Your task to perform on an android device: Search for bose soundlink mini on target, select the first entry, and add it to the cart. Image 0: 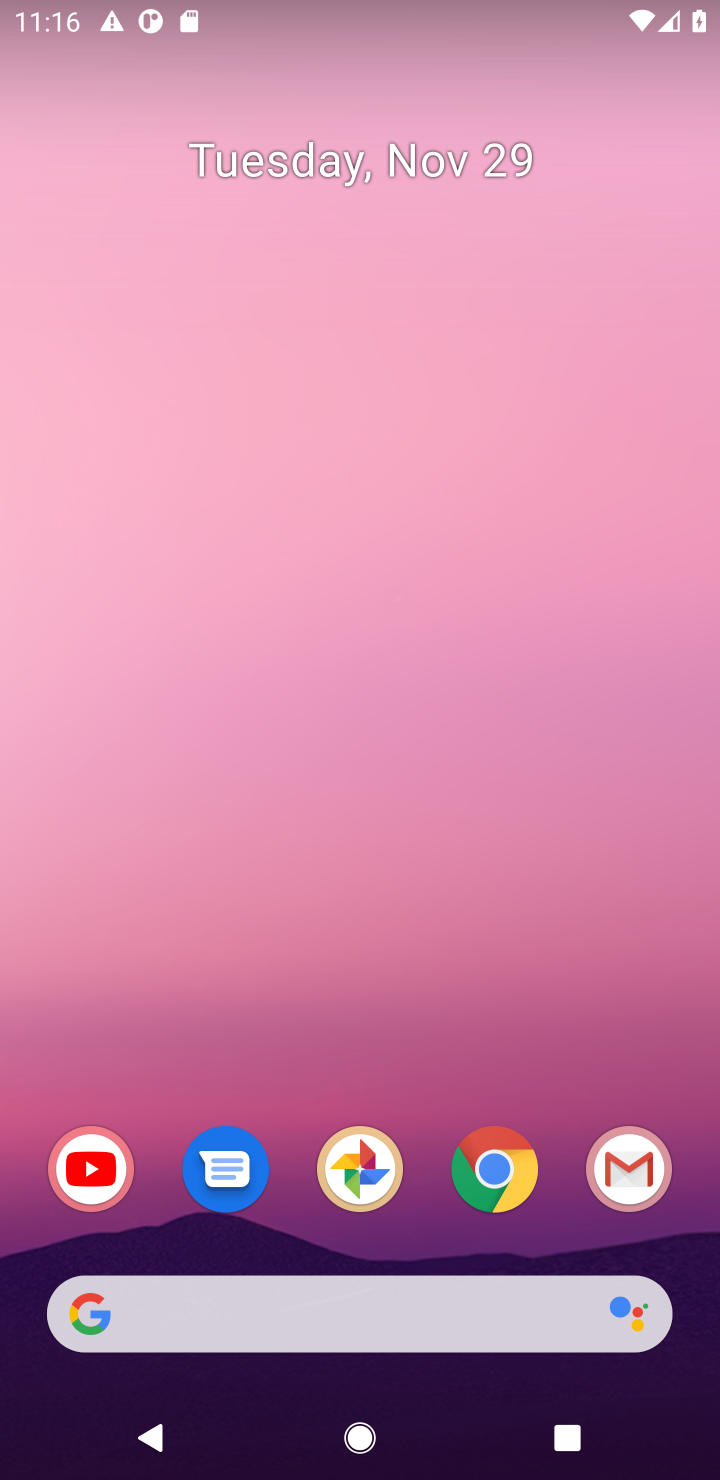
Step 0: click (348, 1300)
Your task to perform on an android device: Search for bose soundlink mini on target, select the first entry, and add it to the cart. Image 1: 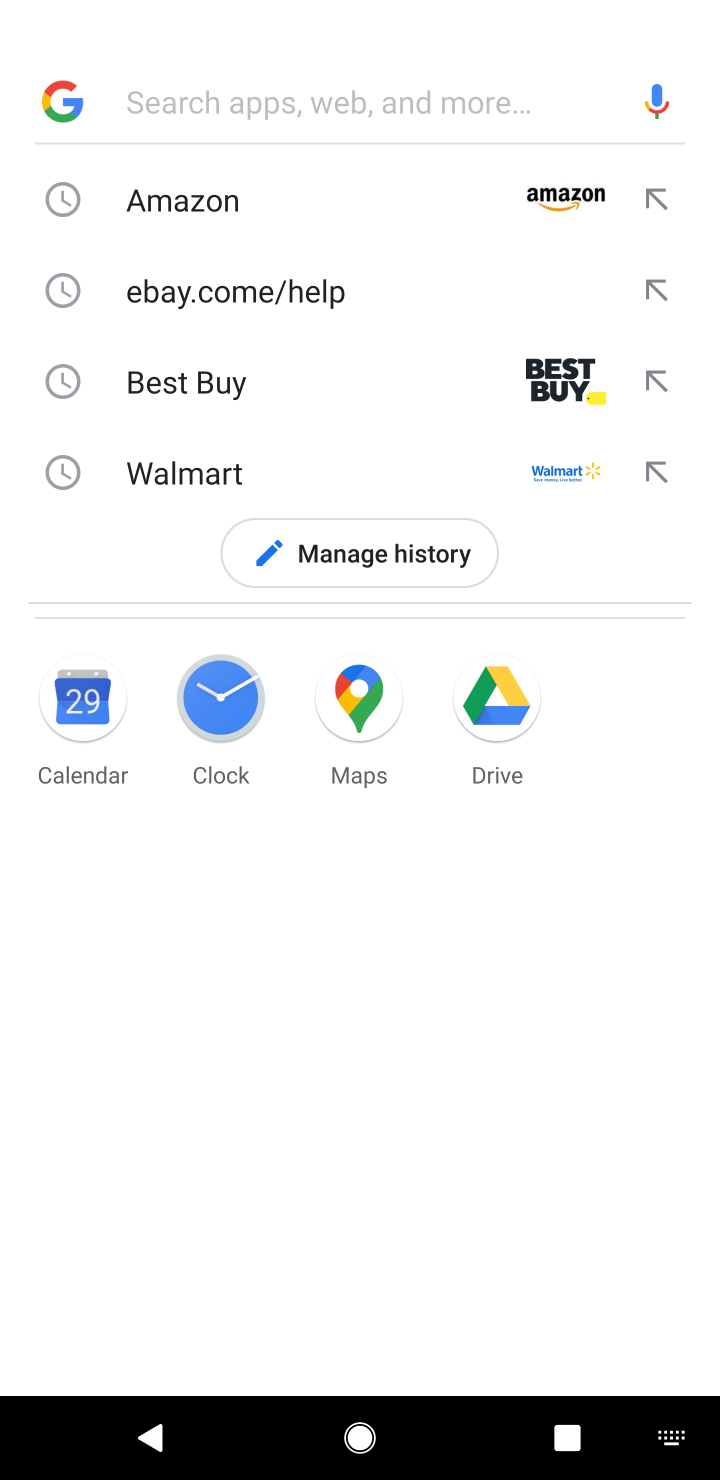
Step 1: type "target"
Your task to perform on an android device: Search for bose soundlink mini on target, select the first entry, and add it to the cart. Image 2: 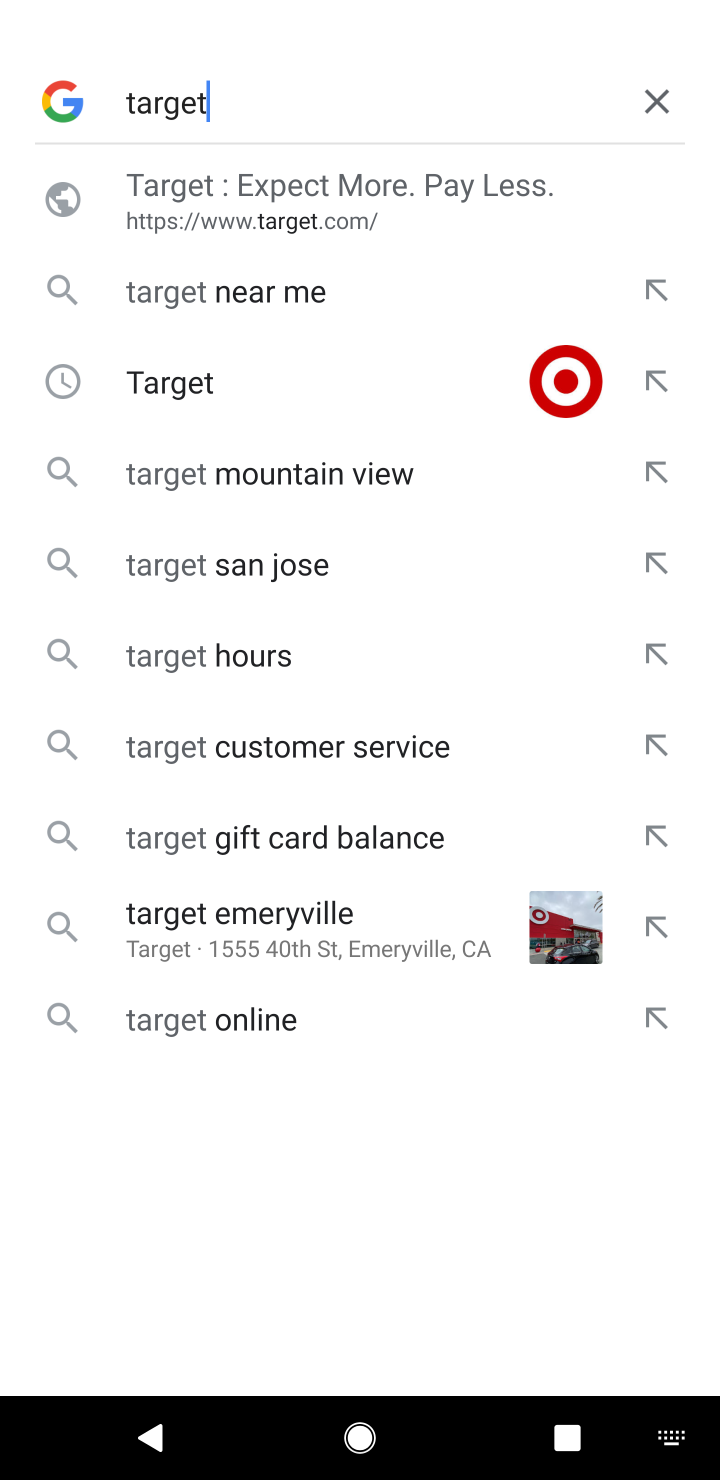
Step 2: click (328, 401)
Your task to perform on an android device: Search for bose soundlink mini on target, select the first entry, and add it to the cart. Image 3: 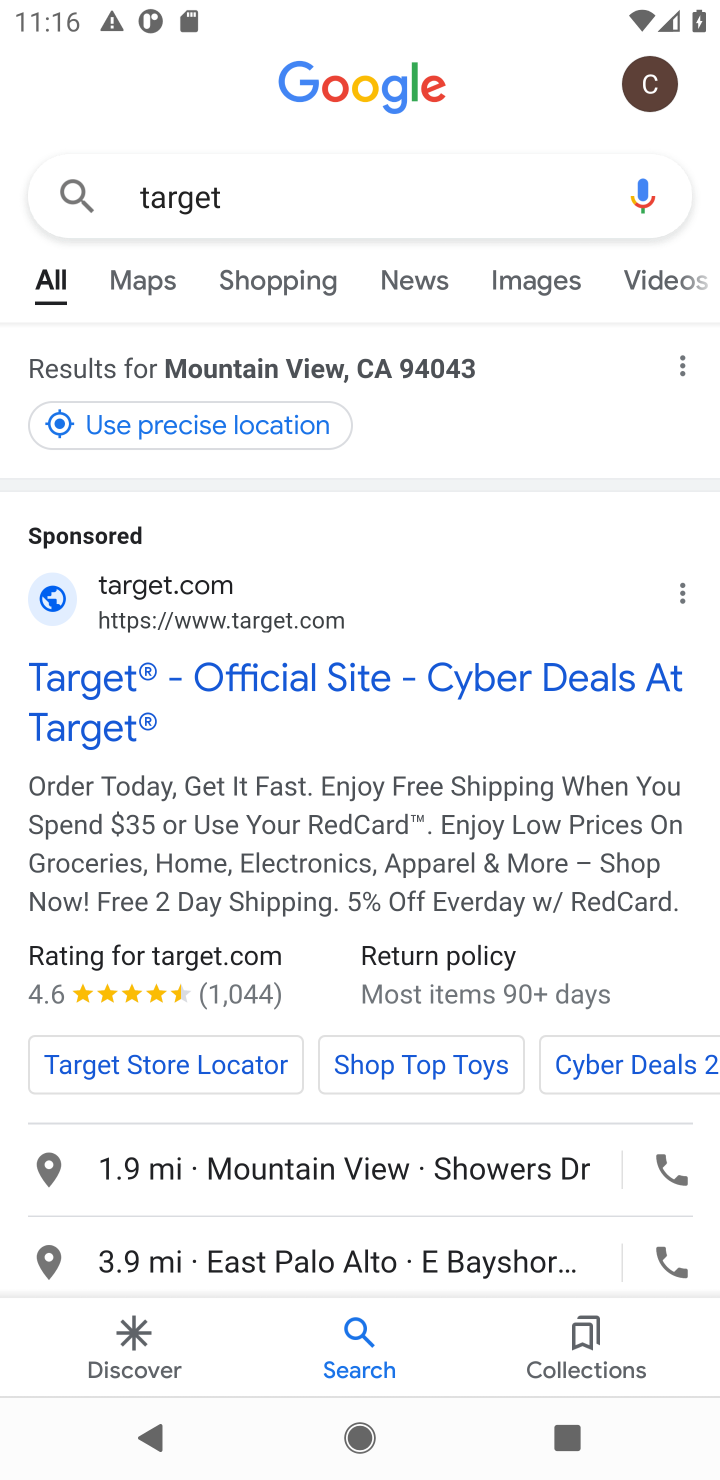
Step 3: click (184, 700)
Your task to perform on an android device: Search for bose soundlink mini on target, select the first entry, and add it to the cart. Image 4: 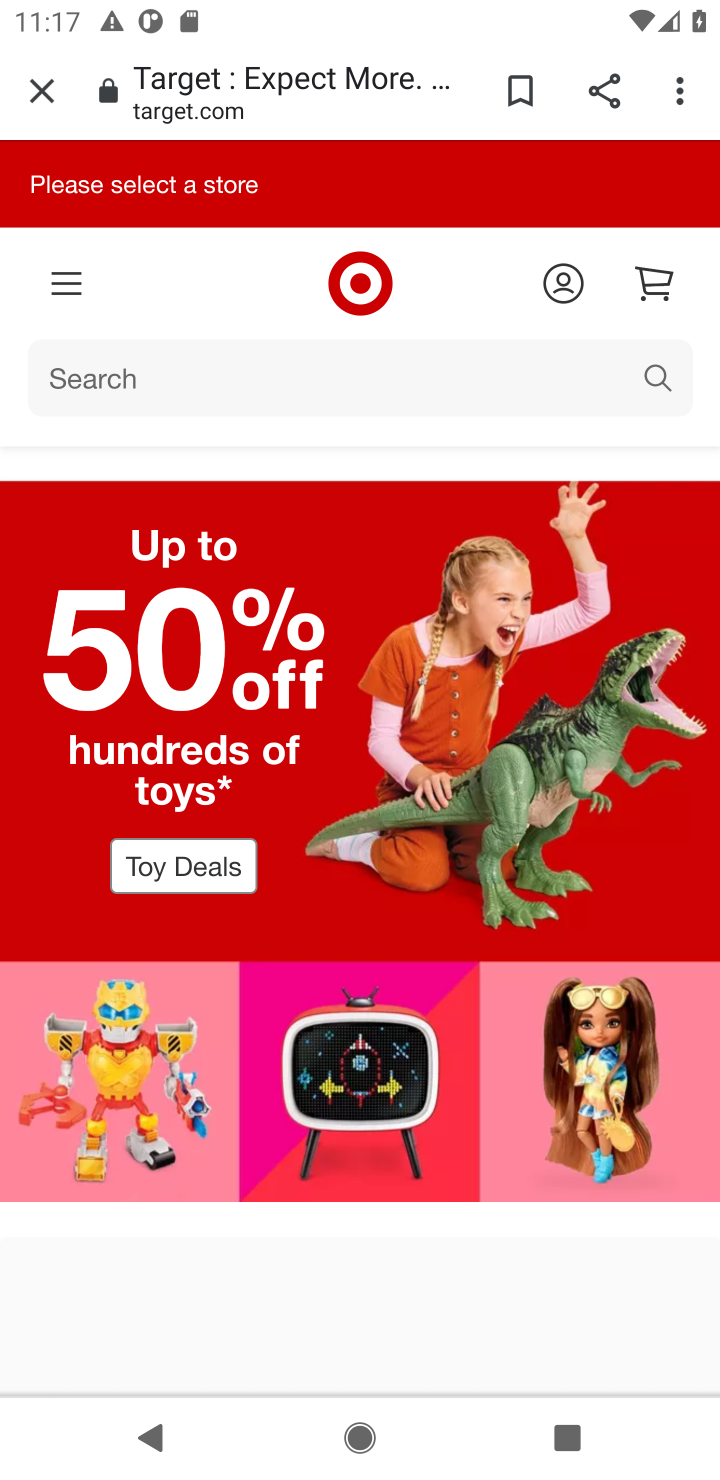
Step 4: click (176, 364)
Your task to perform on an android device: Search for bose soundlink mini on target, select the first entry, and add it to the cart. Image 5: 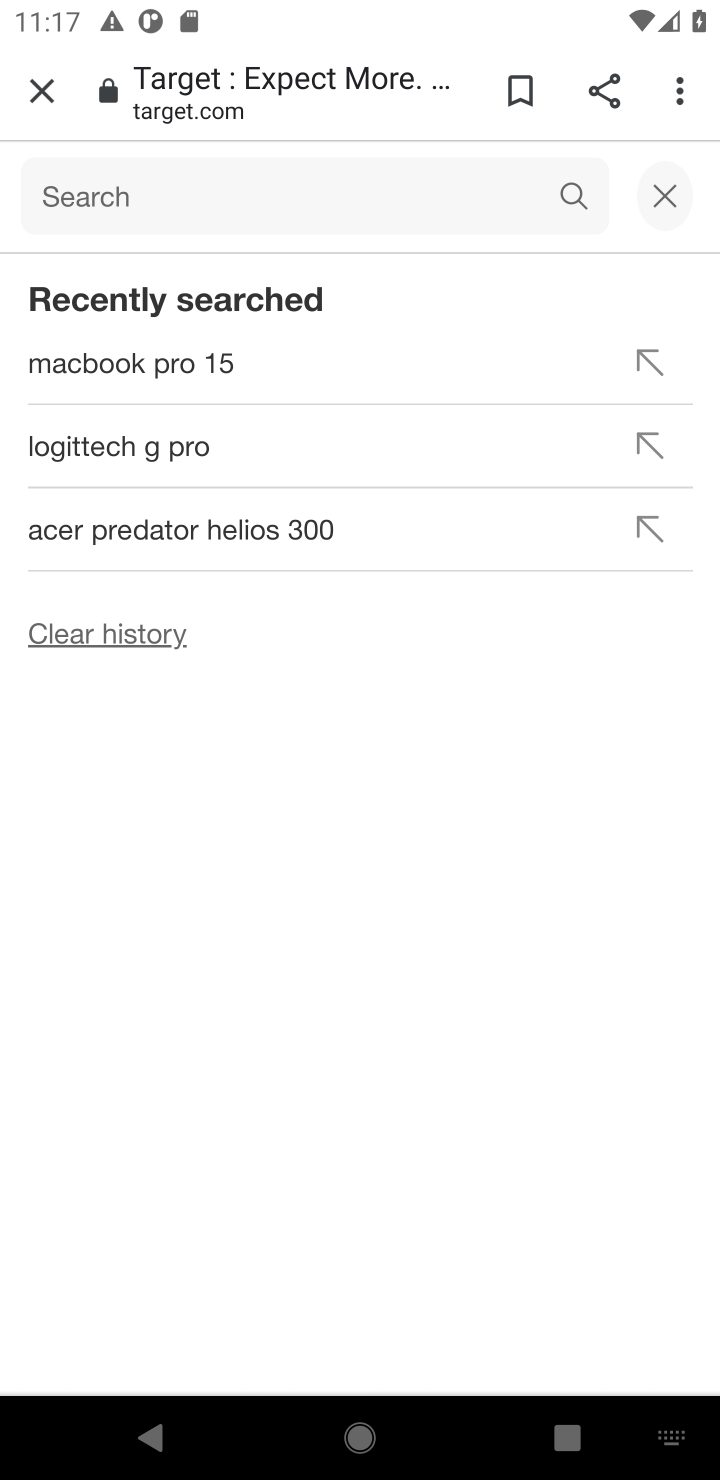
Step 5: type "bose soundlink'"
Your task to perform on an android device: Search for bose soundlink mini on target, select the first entry, and add it to the cart. Image 6: 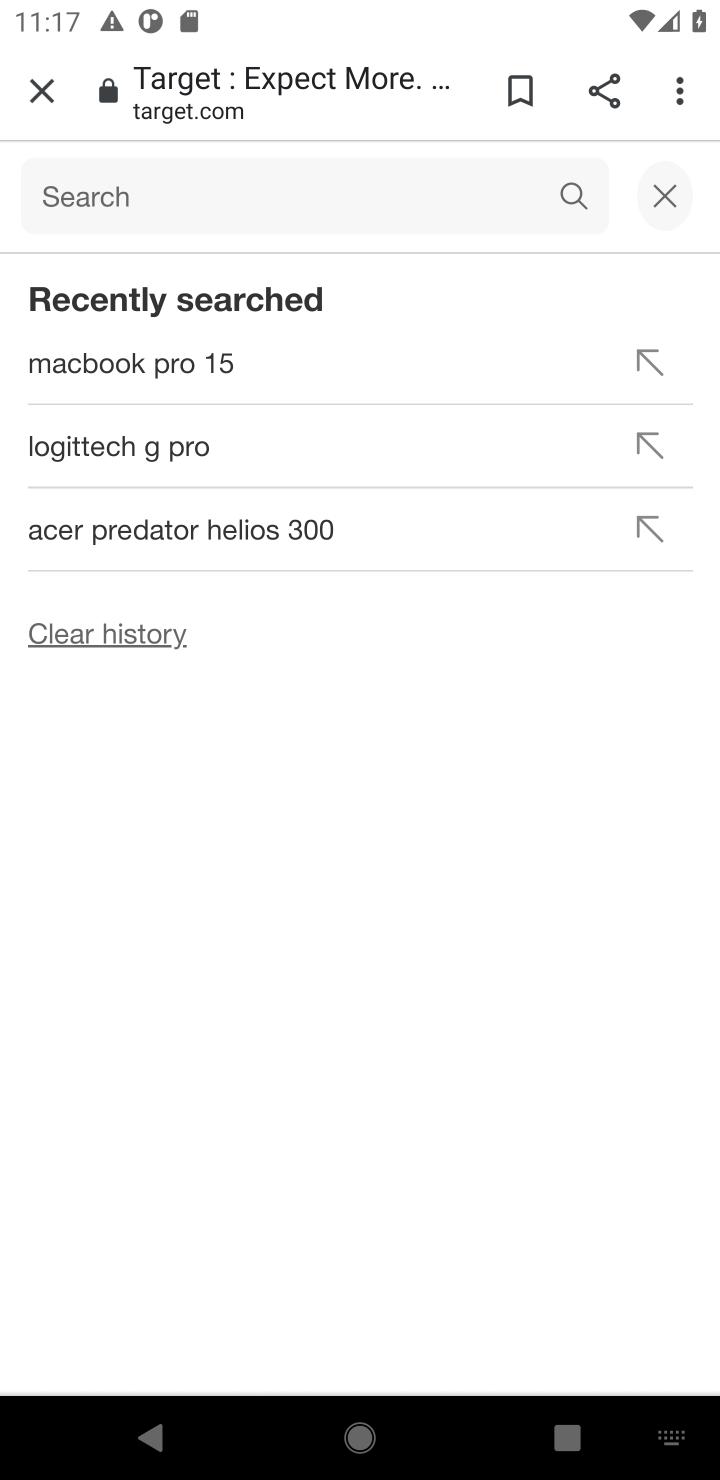
Step 6: type "soundlink mini"
Your task to perform on an android device: Search for bose soundlink mini on target, select the first entry, and add it to the cart. Image 7: 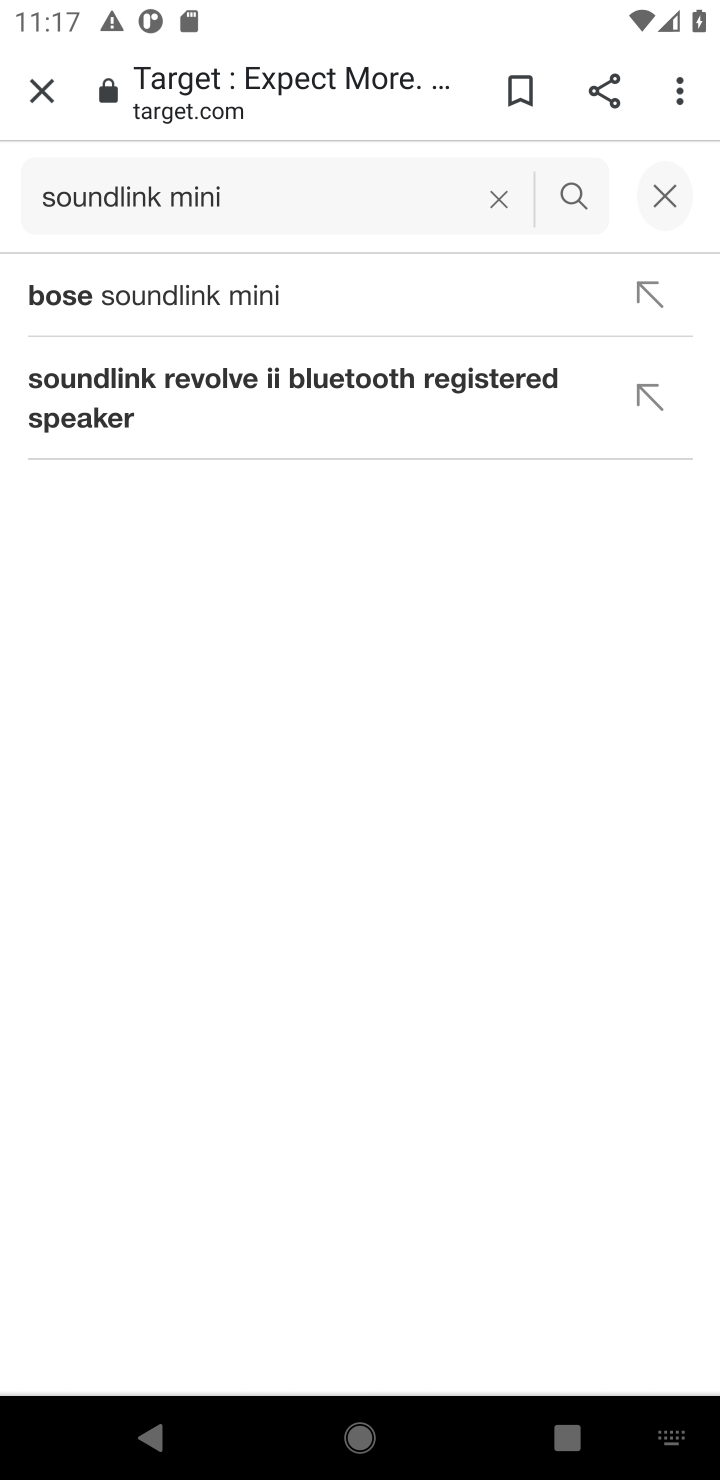
Step 7: click (577, 185)
Your task to perform on an android device: Search for bose soundlink mini on target, select the first entry, and add it to the cart. Image 8: 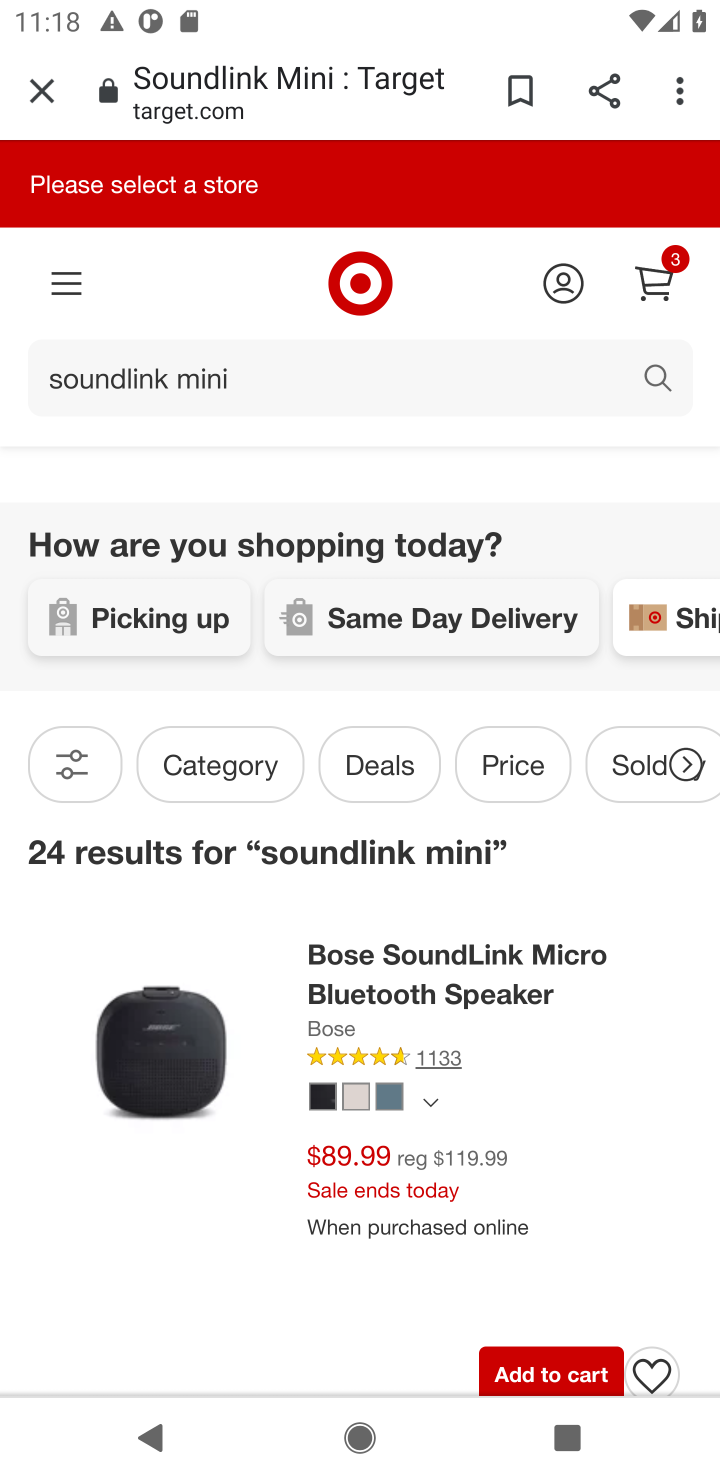
Step 8: click (514, 1382)
Your task to perform on an android device: Search for bose soundlink mini on target, select the first entry, and add it to the cart. Image 9: 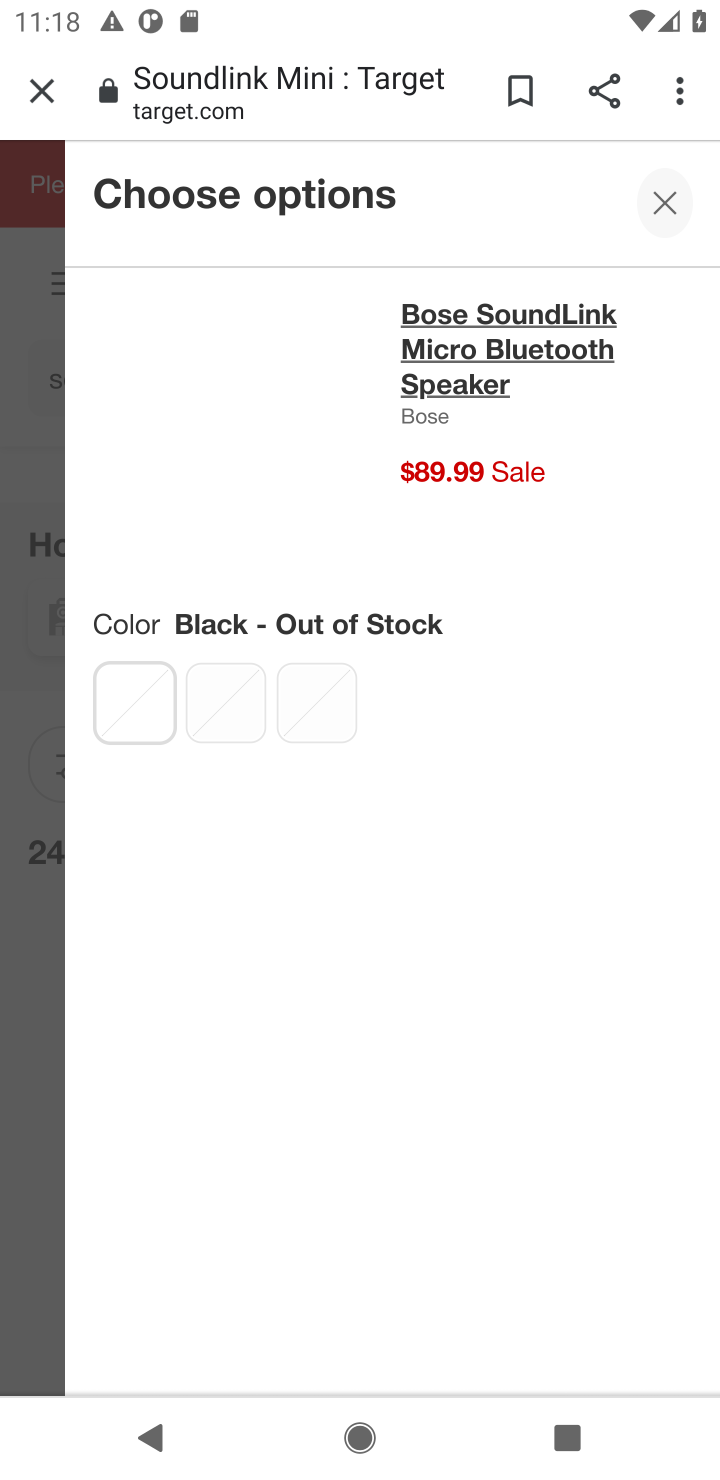
Step 9: task complete